Your task to perform on an android device: Open Youtube and go to the subscriptions tab Image 0: 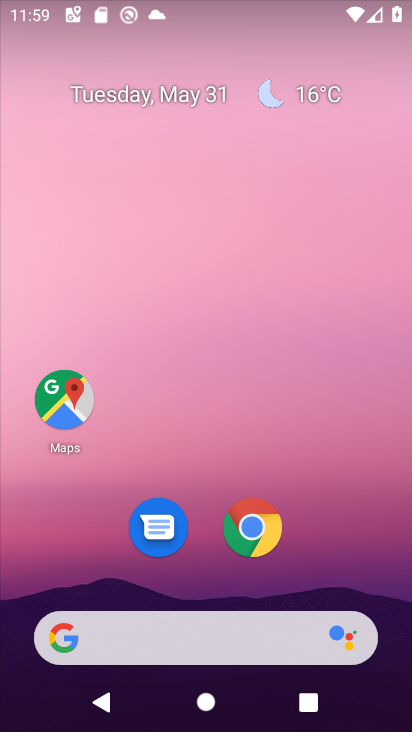
Step 0: drag from (356, 586) to (370, 15)
Your task to perform on an android device: Open Youtube and go to the subscriptions tab Image 1: 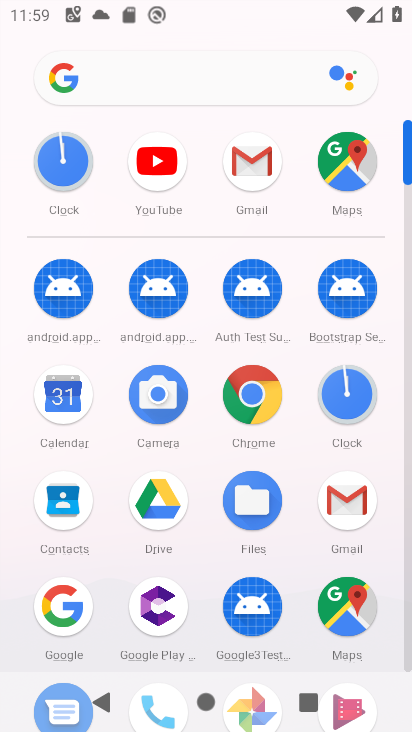
Step 1: click (152, 167)
Your task to perform on an android device: Open Youtube and go to the subscriptions tab Image 2: 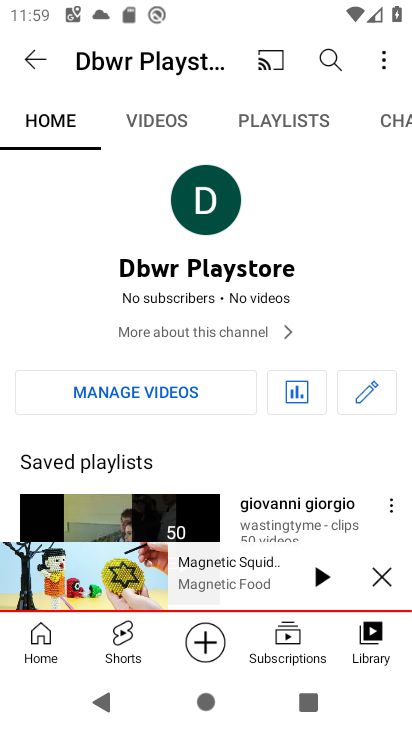
Step 2: click (287, 652)
Your task to perform on an android device: Open Youtube and go to the subscriptions tab Image 3: 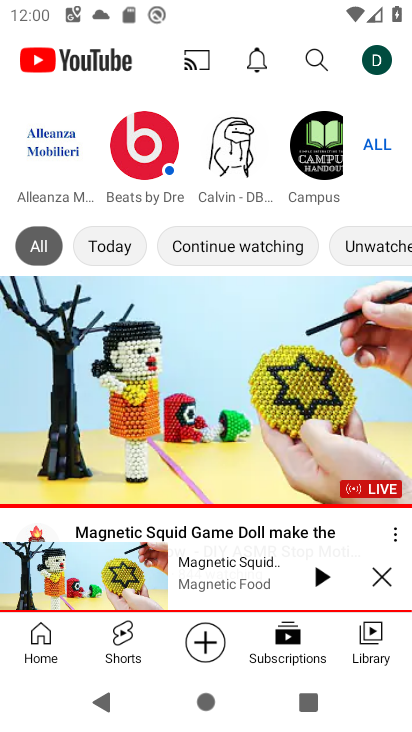
Step 3: task complete